Your task to perform on an android device: Open Chrome and go to settings Image 0: 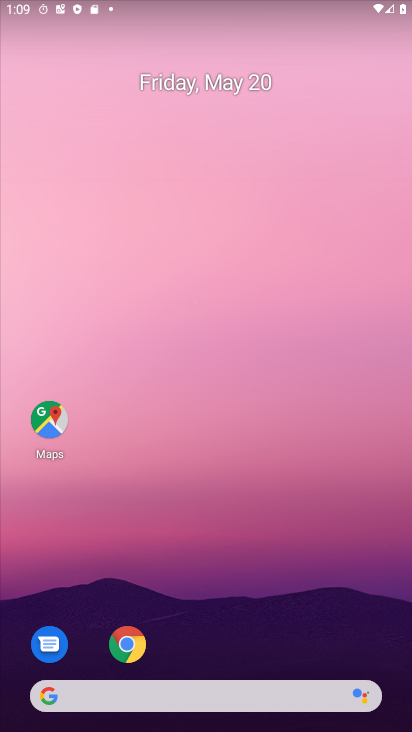
Step 0: drag from (342, 552) to (364, 62)
Your task to perform on an android device: Open Chrome and go to settings Image 1: 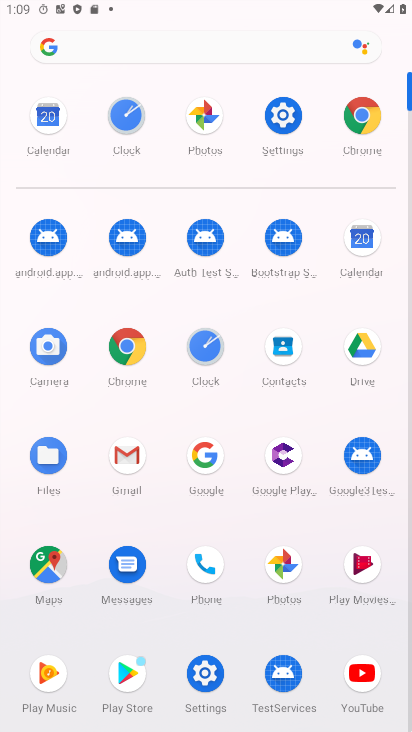
Step 1: click (360, 121)
Your task to perform on an android device: Open Chrome and go to settings Image 2: 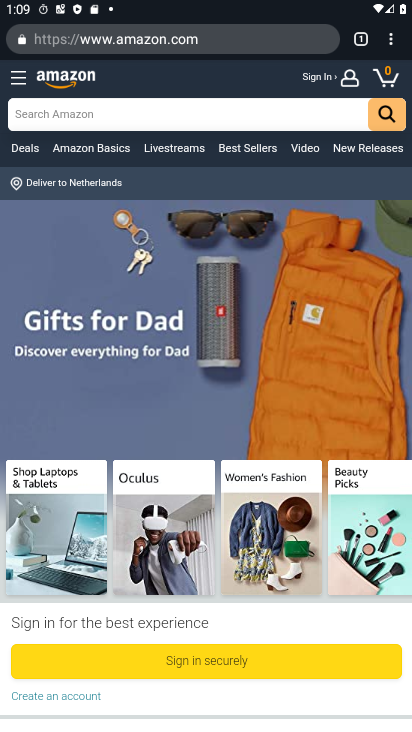
Step 2: task complete